Your task to perform on an android device: add a label to a message in the gmail app Image 0: 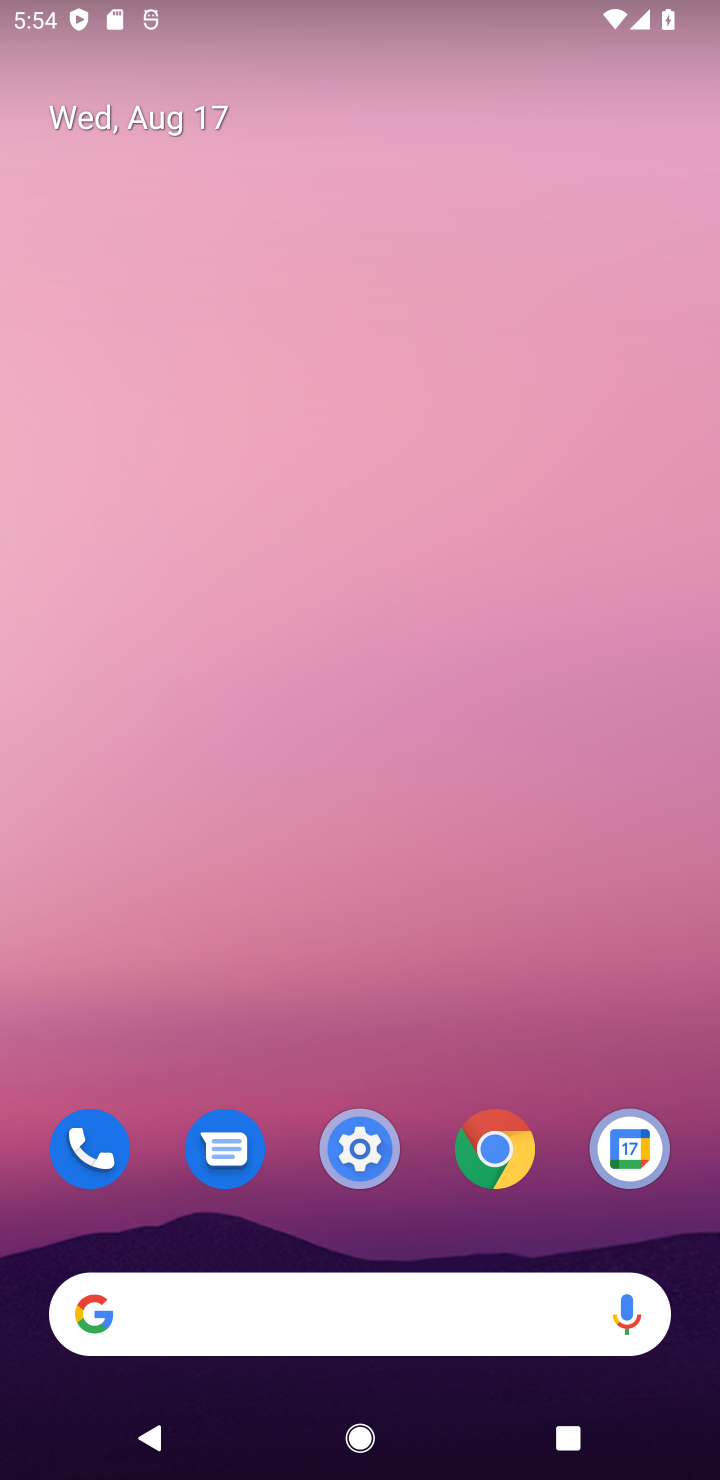
Step 0: drag from (418, 1074) to (284, 397)
Your task to perform on an android device: add a label to a message in the gmail app Image 1: 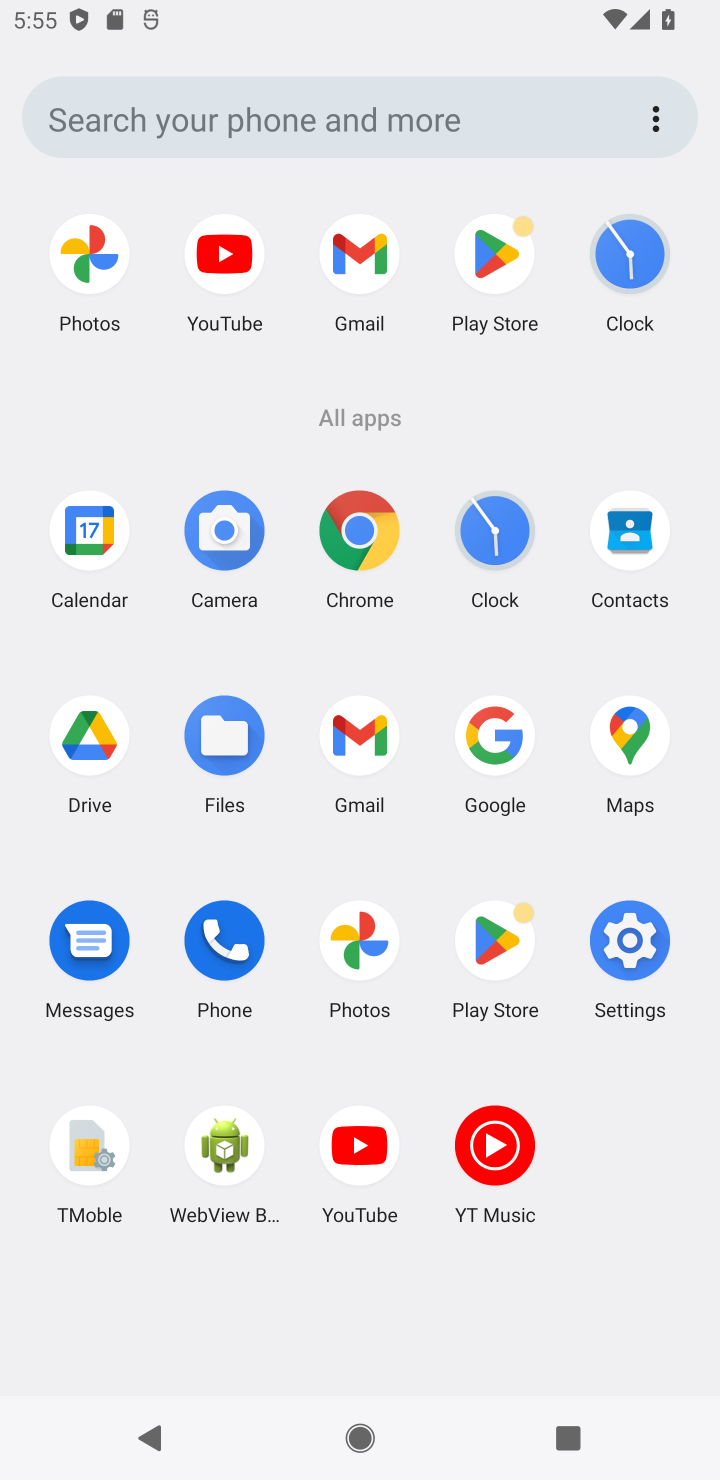
Step 1: click (365, 729)
Your task to perform on an android device: add a label to a message in the gmail app Image 2: 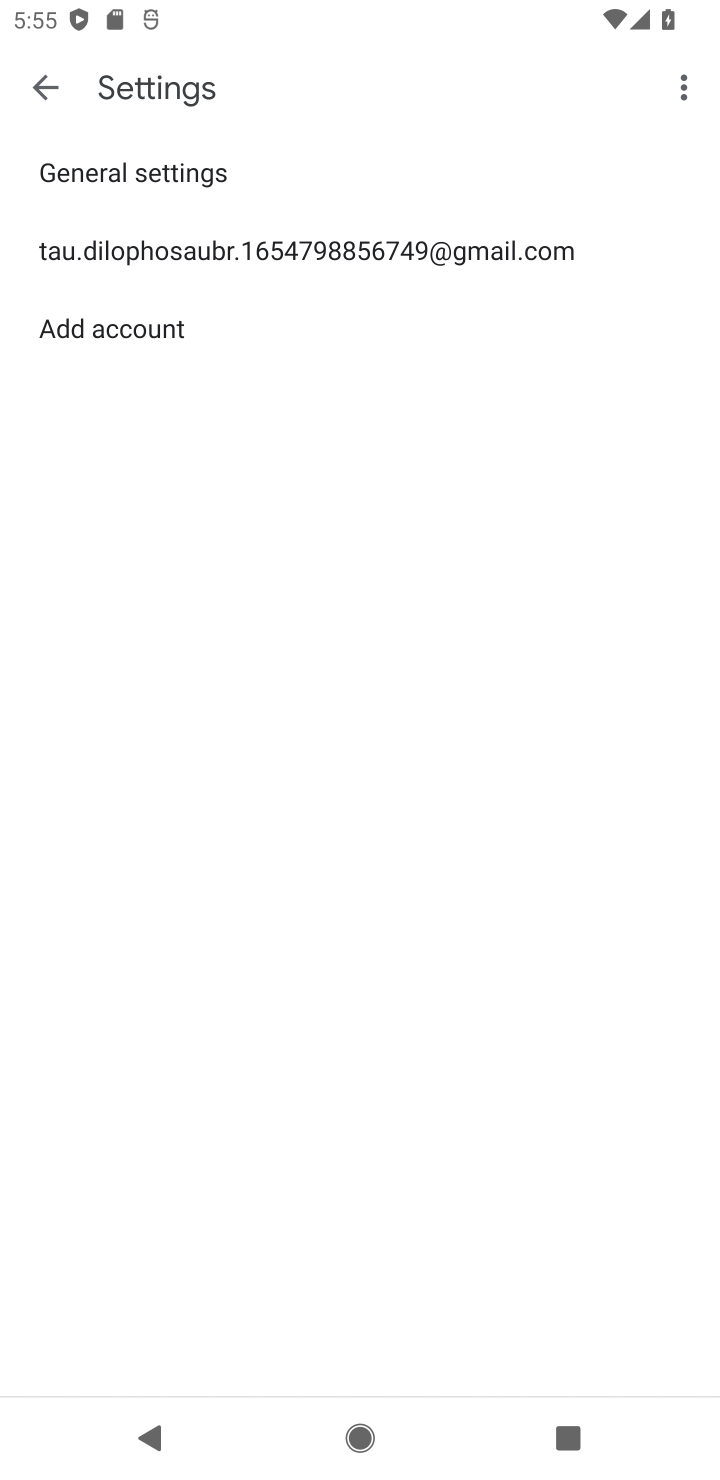
Step 2: click (48, 82)
Your task to perform on an android device: add a label to a message in the gmail app Image 3: 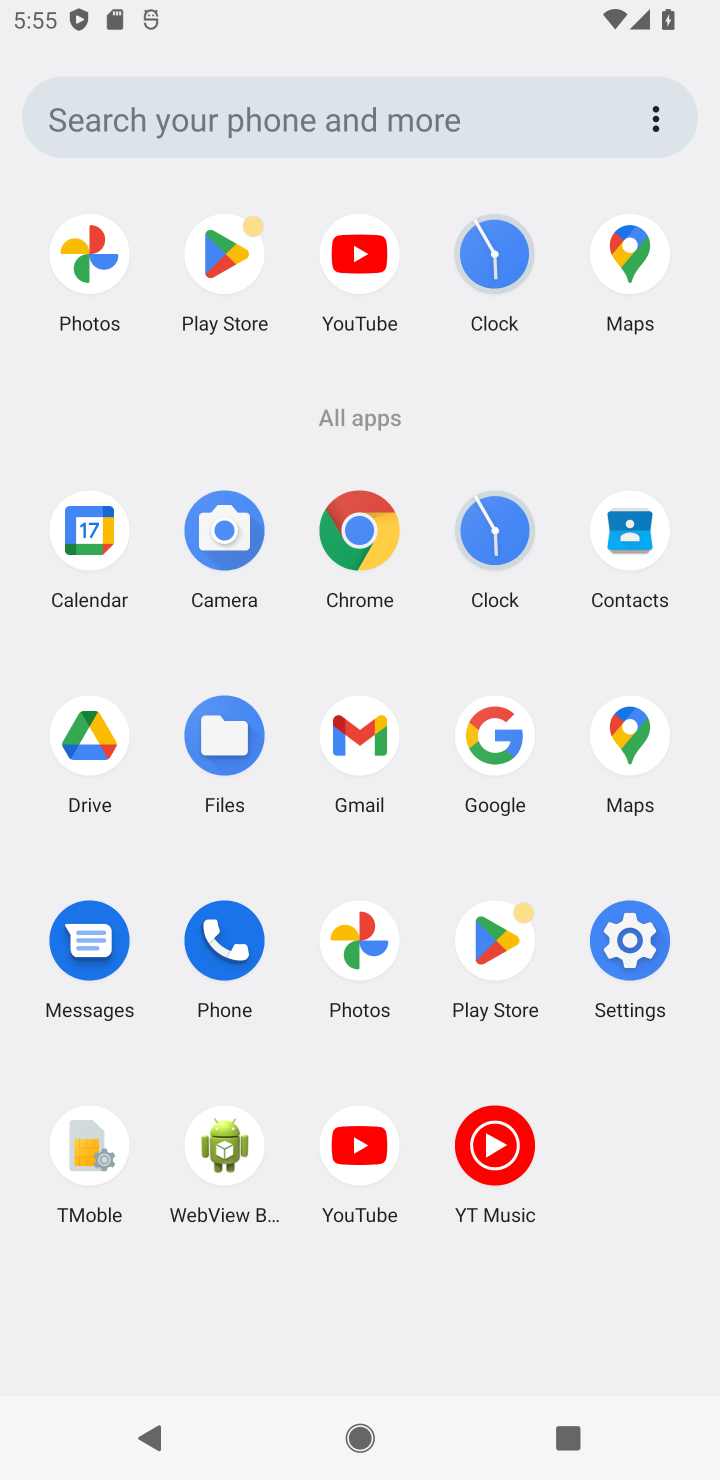
Step 3: click (364, 734)
Your task to perform on an android device: add a label to a message in the gmail app Image 4: 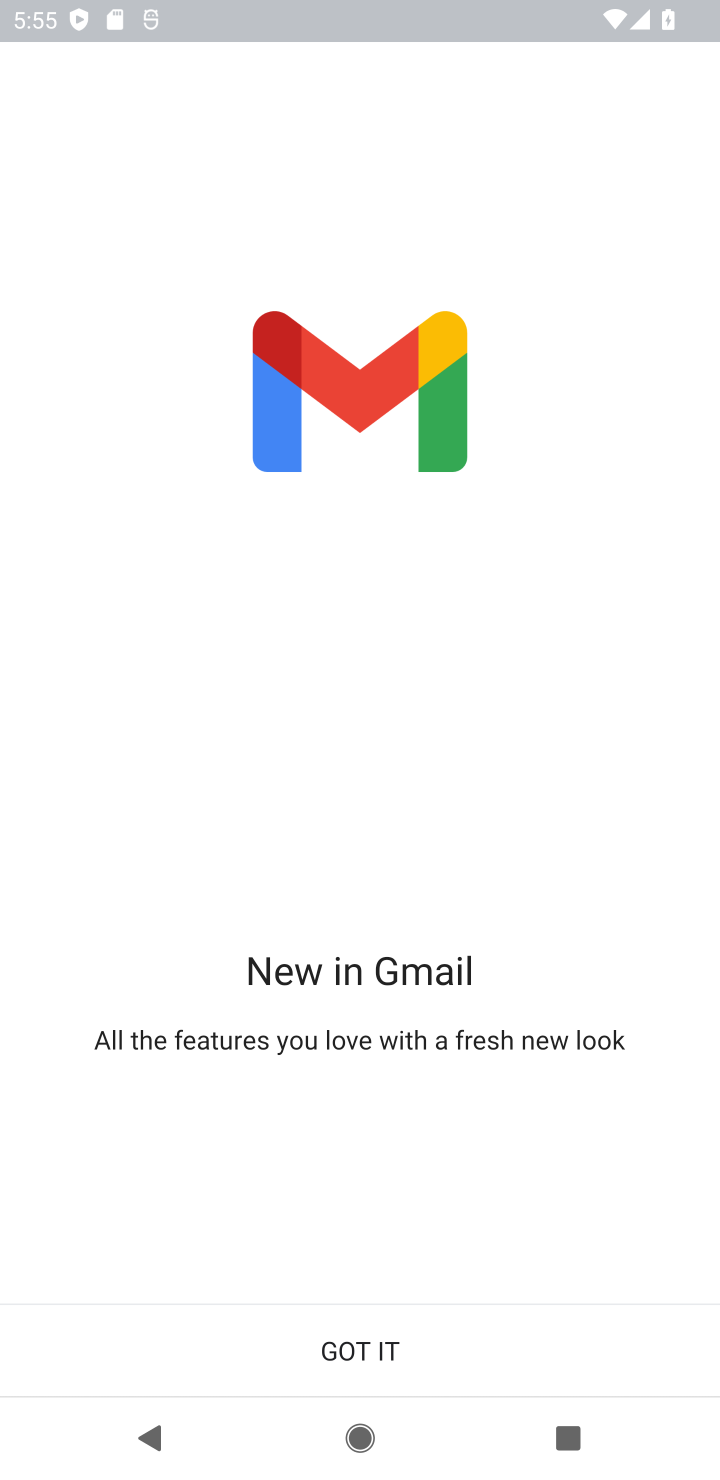
Step 4: click (367, 1348)
Your task to perform on an android device: add a label to a message in the gmail app Image 5: 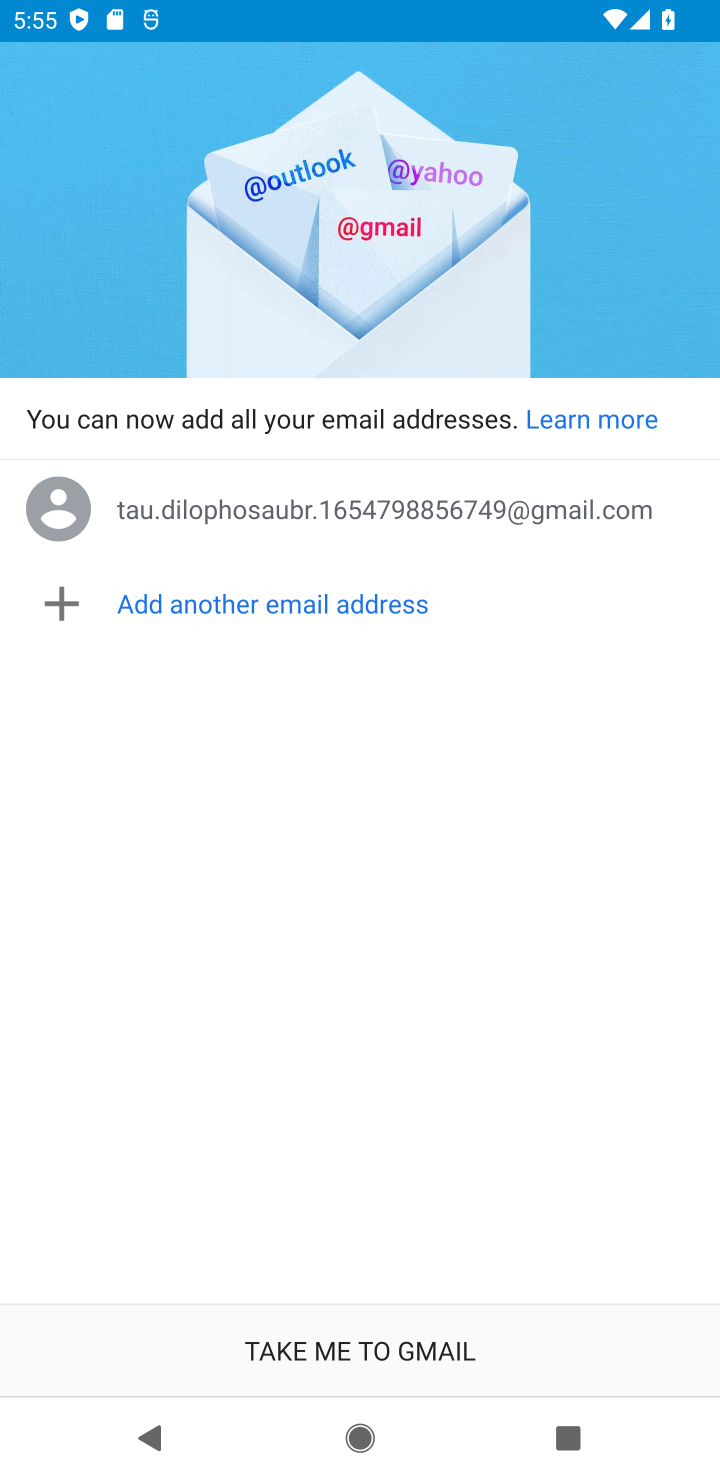
Step 5: click (367, 1348)
Your task to perform on an android device: add a label to a message in the gmail app Image 6: 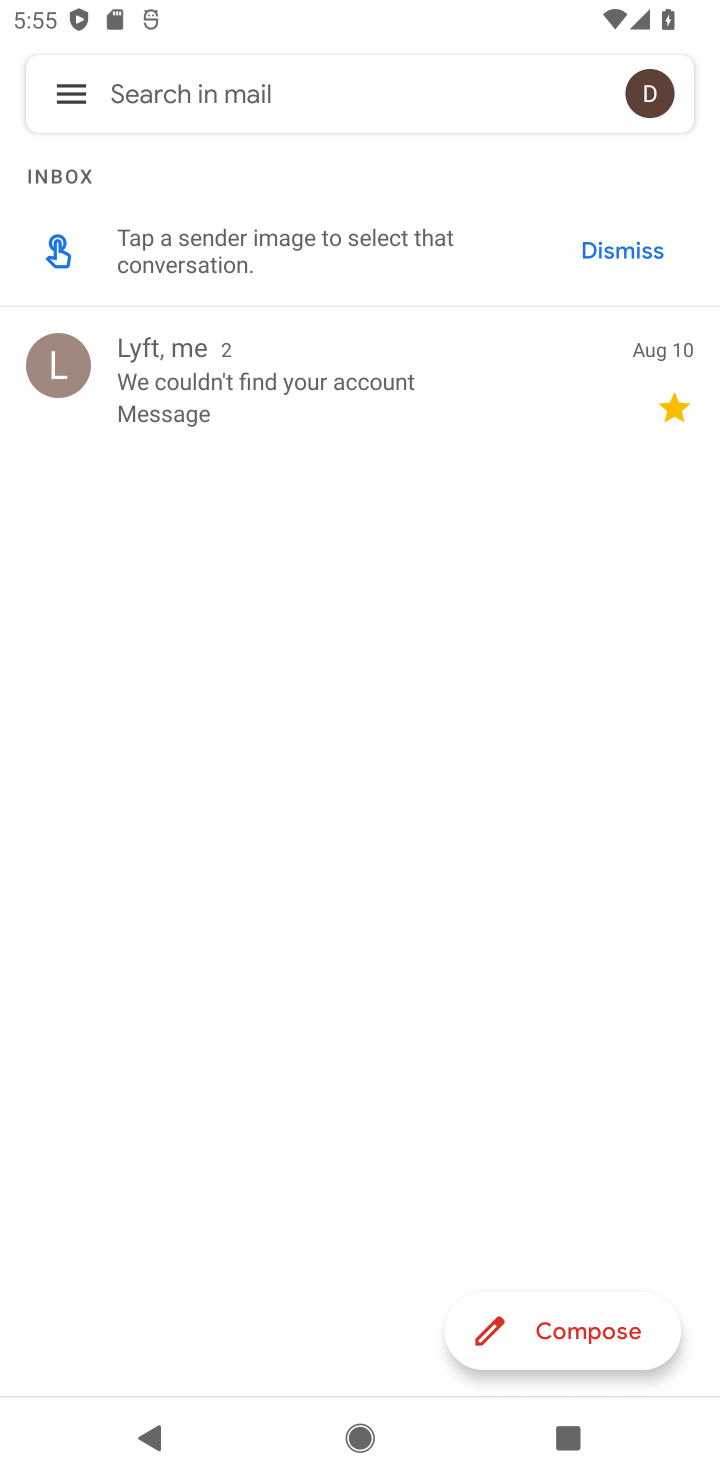
Step 6: click (309, 355)
Your task to perform on an android device: add a label to a message in the gmail app Image 7: 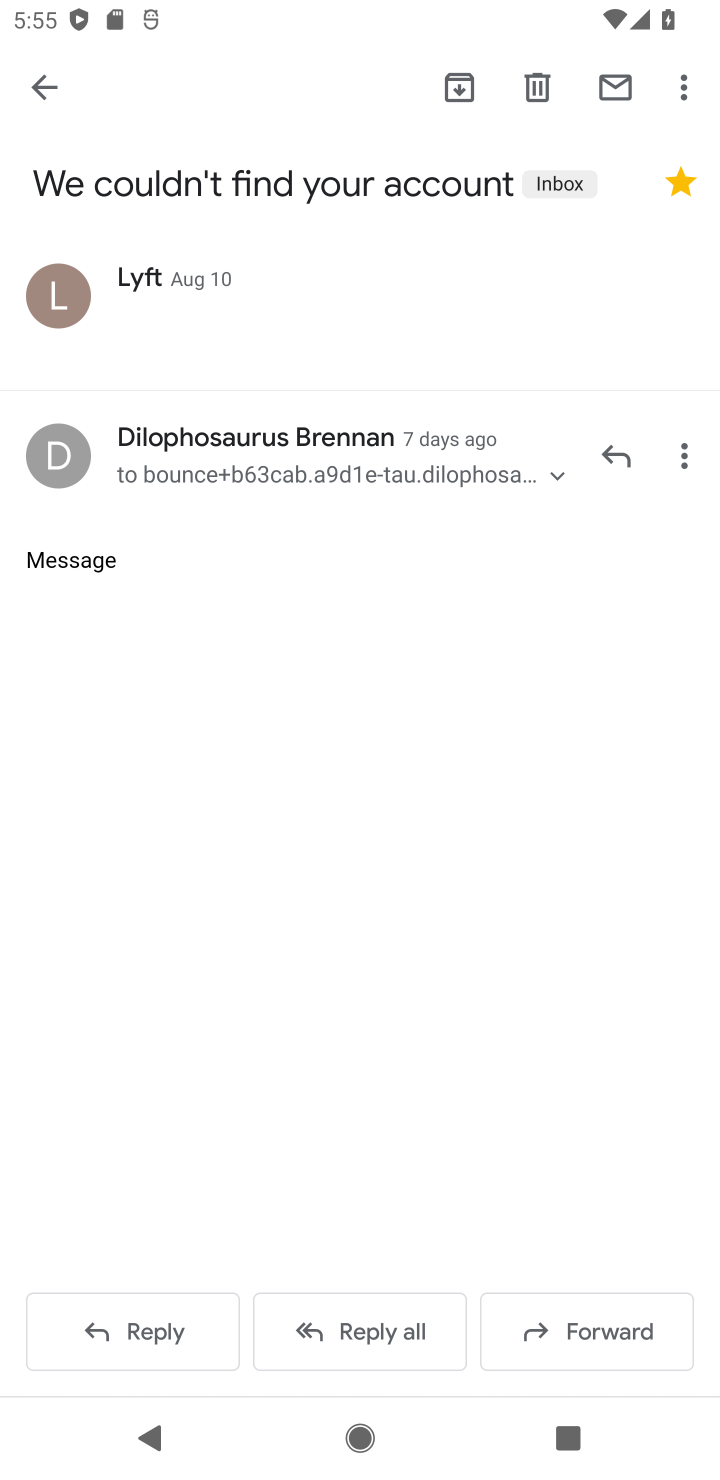
Step 7: click (684, 80)
Your task to perform on an android device: add a label to a message in the gmail app Image 8: 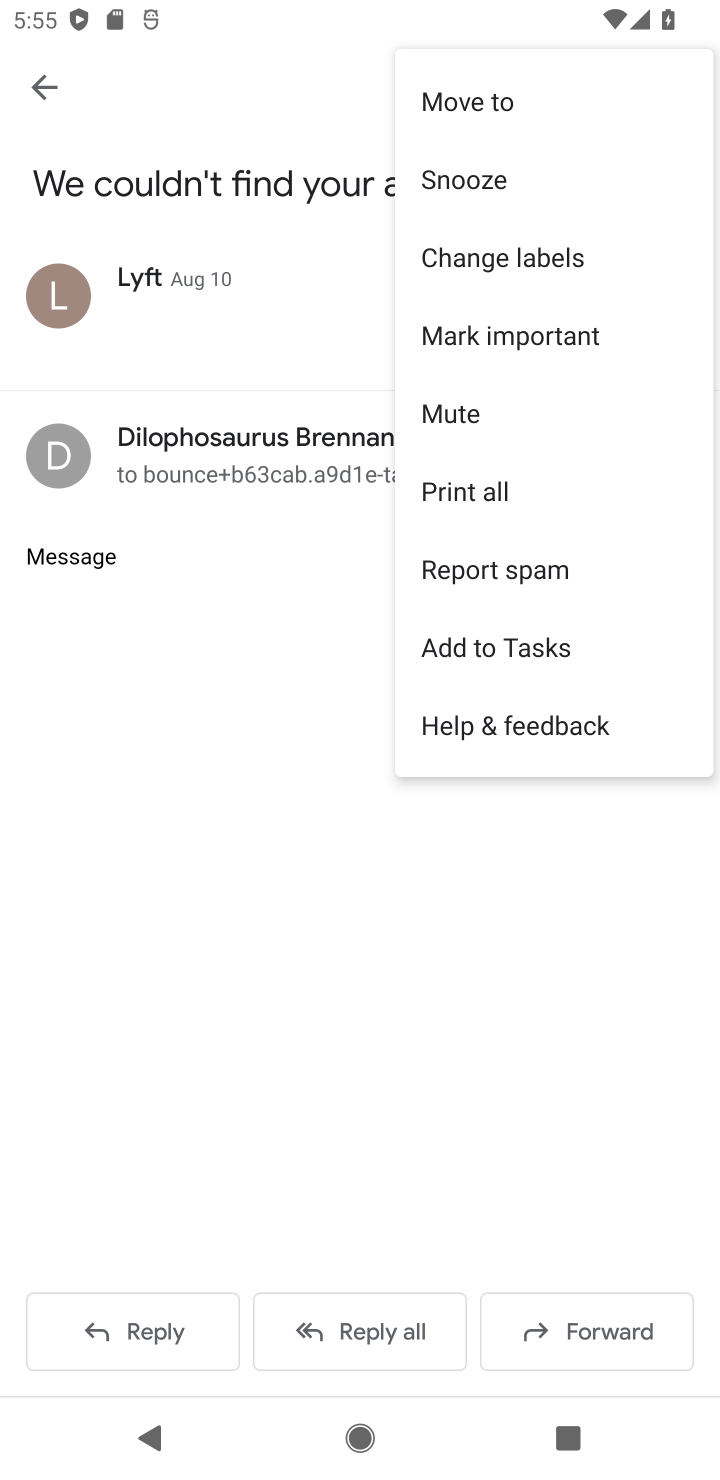
Step 8: click (507, 253)
Your task to perform on an android device: add a label to a message in the gmail app Image 9: 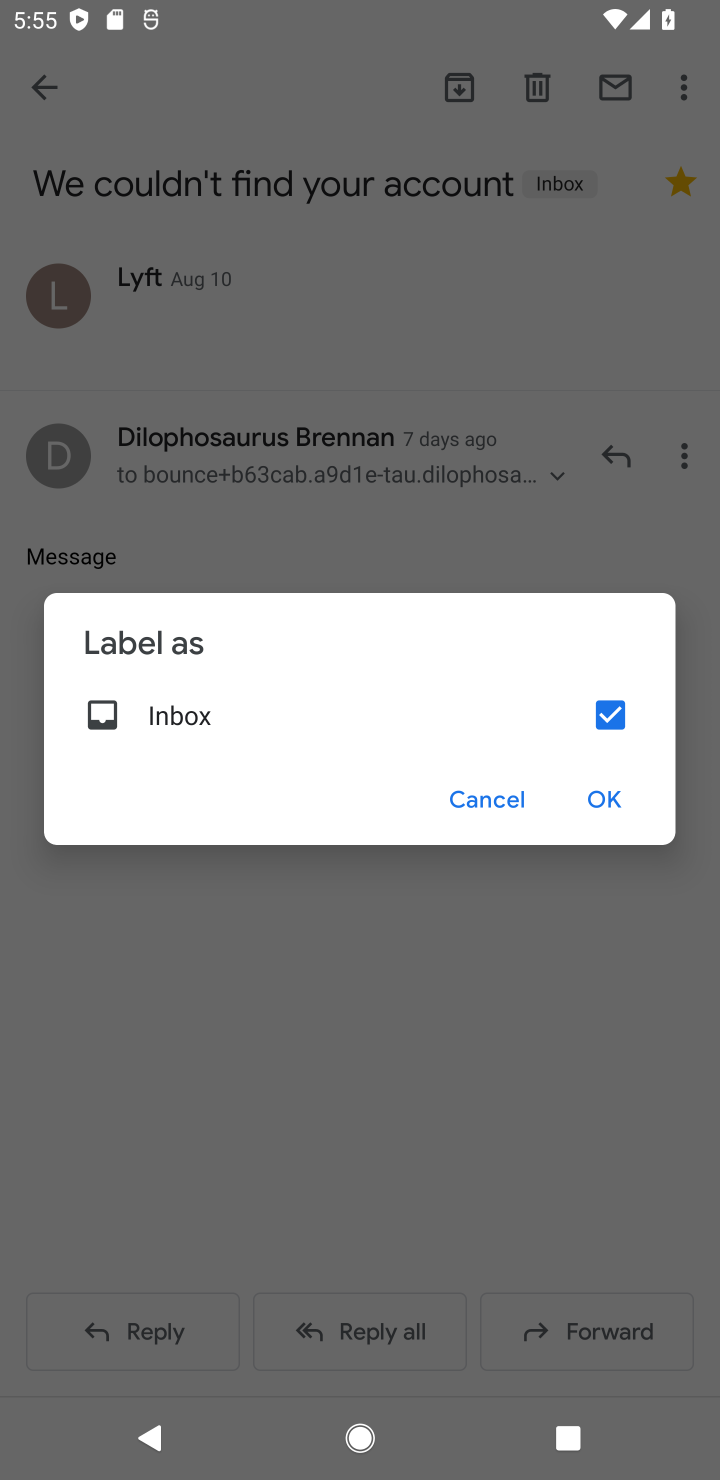
Step 9: click (624, 799)
Your task to perform on an android device: add a label to a message in the gmail app Image 10: 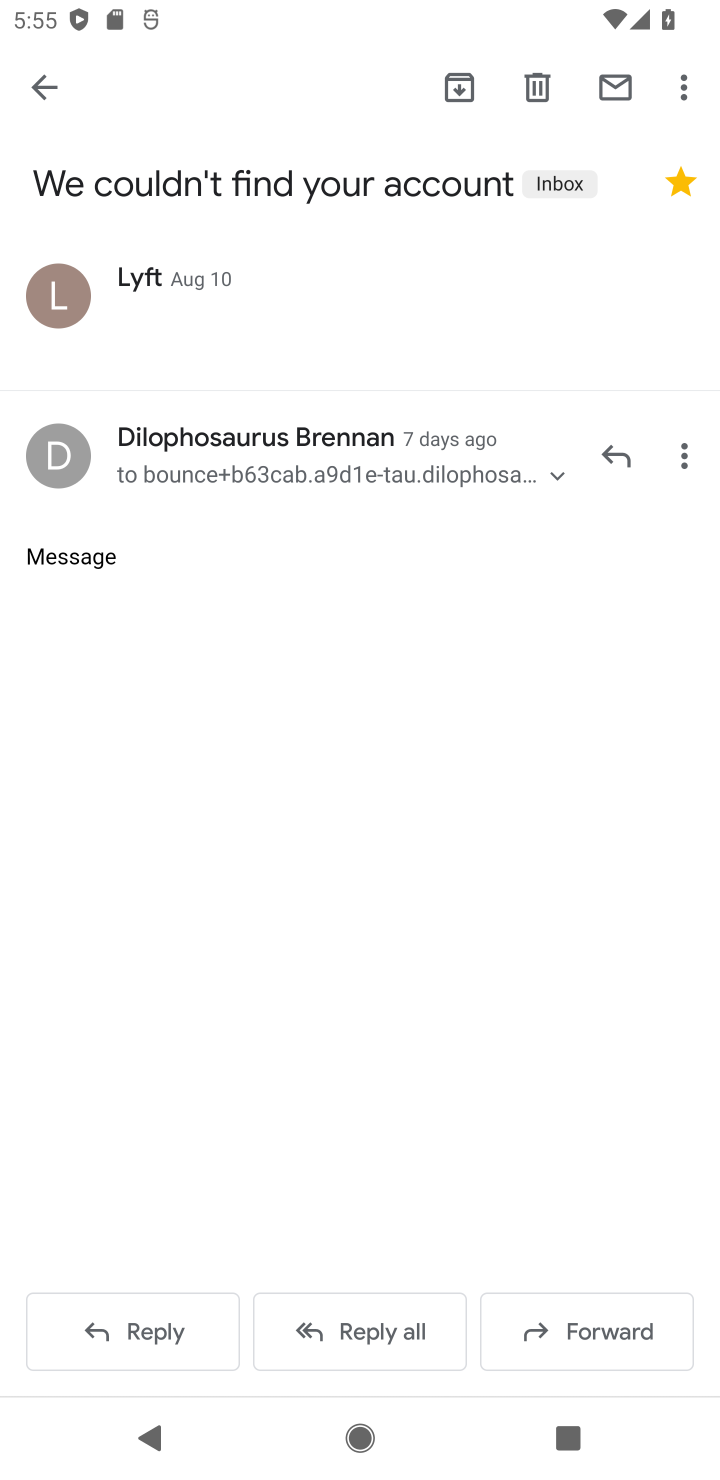
Step 10: task complete